Your task to perform on an android device: stop showing notifications on the lock screen Image 0: 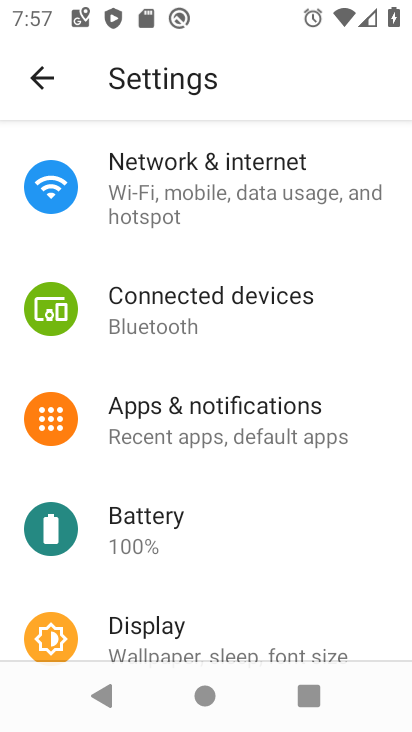
Step 0: press home button
Your task to perform on an android device: stop showing notifications on the lock screen Image 1: 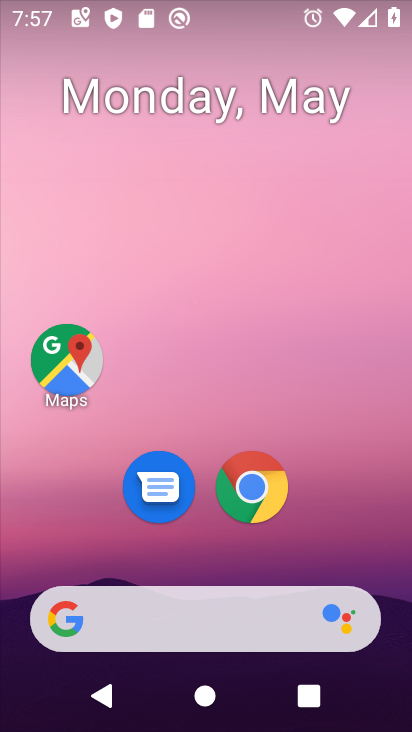
Step 1: drag from (320, 543) to (333, 169)
Your task to perform on an android device: stop showing notifications on the lock screen Image 2: 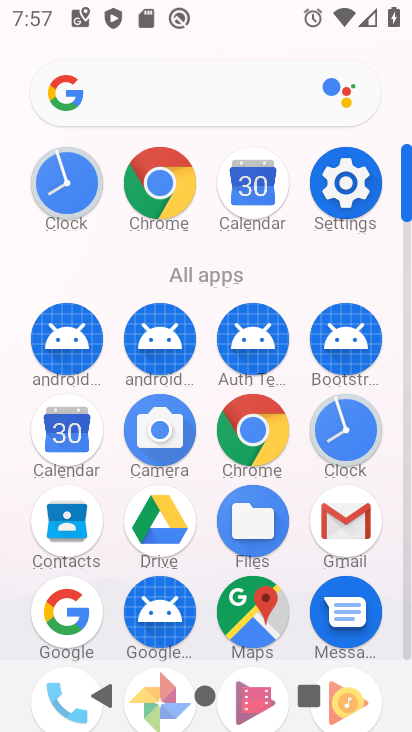
Step 2: click (345, 187)
Your task to perform on an android device: stop showing notifications on the lock screen Image 3: 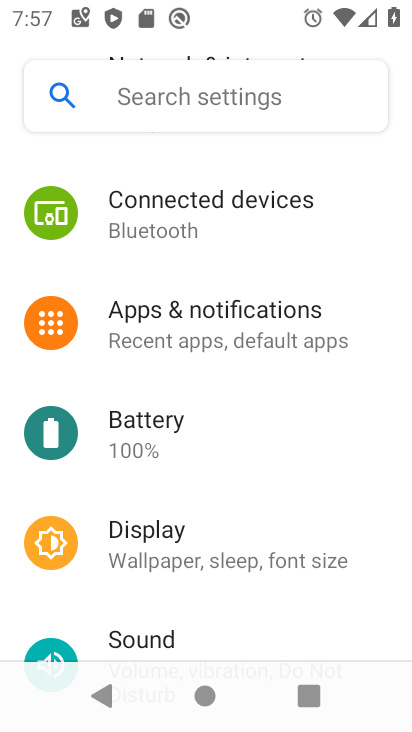
Step 3: click (199, 317)
Your task to perform on an android device: stop showing notifications on the lock screen Image 4: 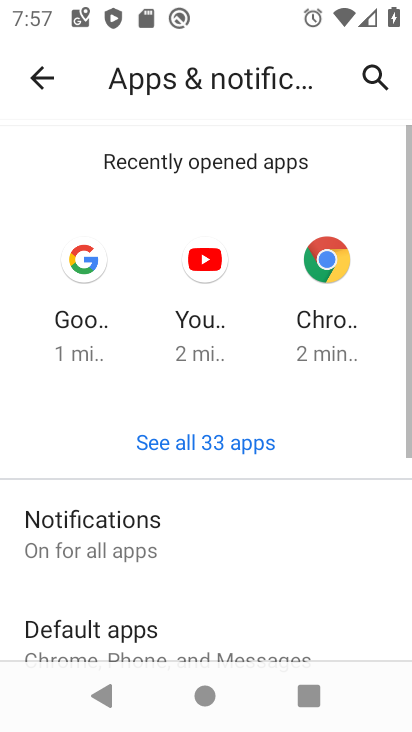
Step 4: click (107, 529)
Your task to perform on an android device: stop showing notifications on the lock screen Image 5: 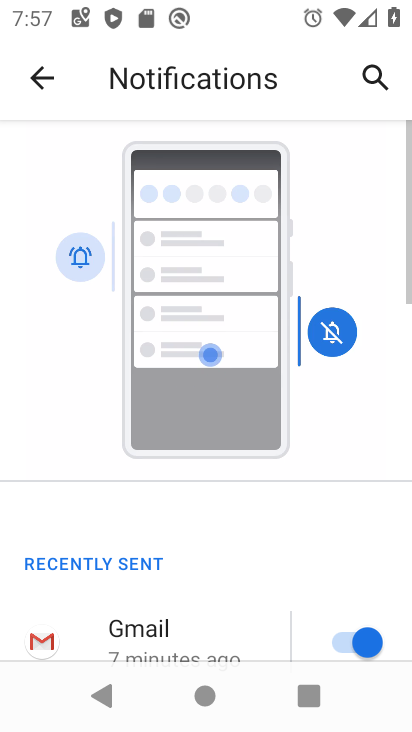
Step 5: drag from (274, 543) to (271, 13)
Your task to perform on an android device: stop showing notifications on the lock screen Image 6: 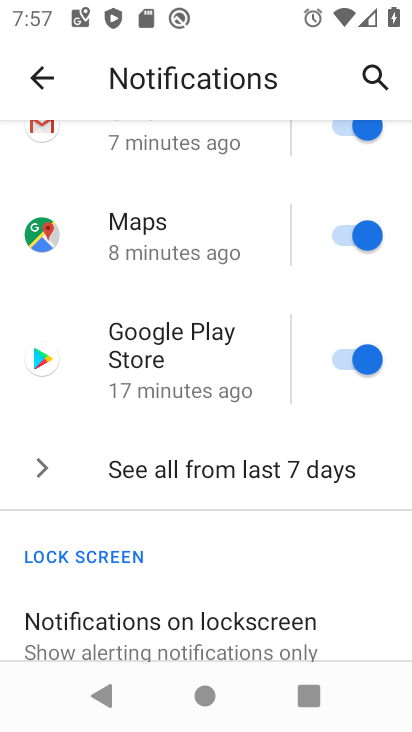
Step 6: click (150, 631)
Your task to perform on an android device: stop showing notifications on the lock screen Image 7: 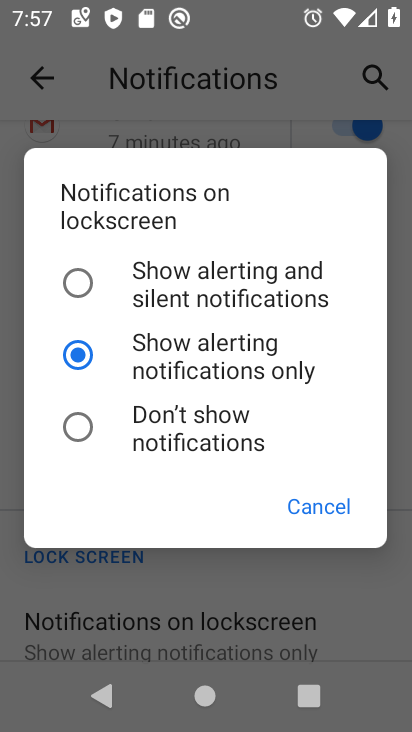
Step 7: click (80, 427)
Your task to perform on an android device: stop showing notifications on the lock screen Image 8: 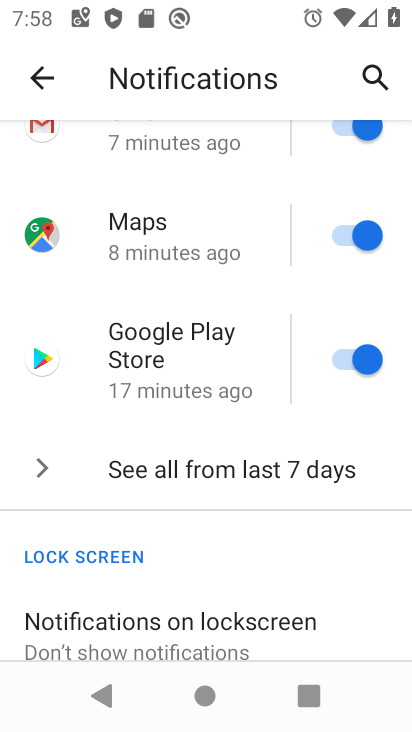
Step 8: task complete